Your task to perform on an android device: Go to Wikipedia Image 0: 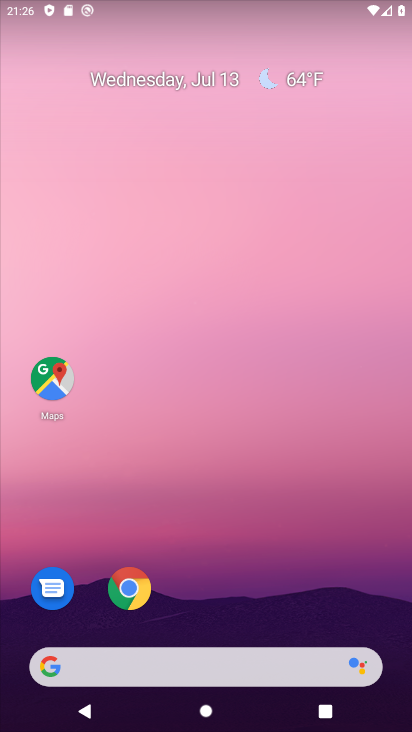
Step 0: click (137, 576)
Your task to perform on an android device: Go to Wikipedia Image 1: 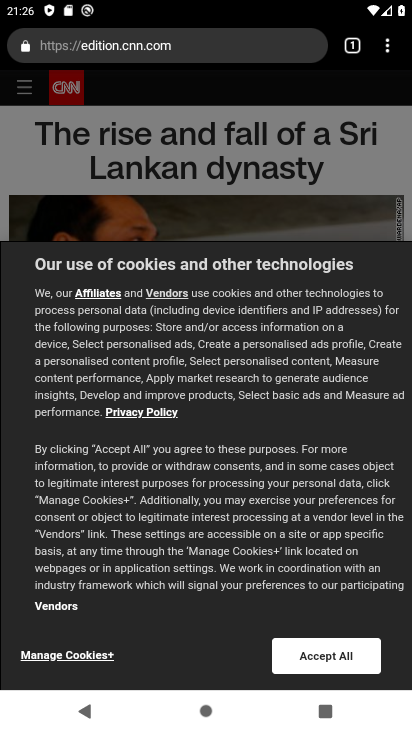
Step 1: click (354, 38)
Your task to perform on an android device: Go to Wikipedia Image 2: 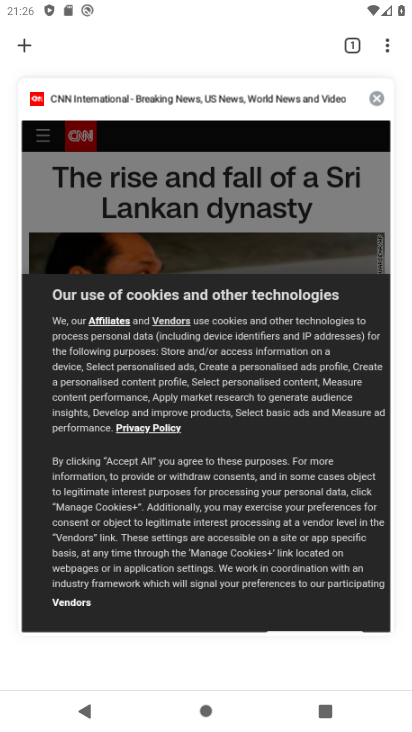
Step 2: click (13, 38)
Your task to perform on an android device: Go to Wikipedia Image 3: 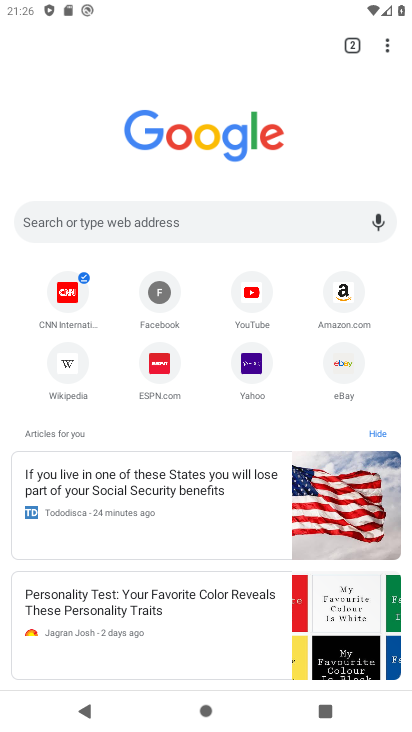
Step 3: click (58, 366)
Your task to perform on an android device: Go to Wikipedia Image 4: 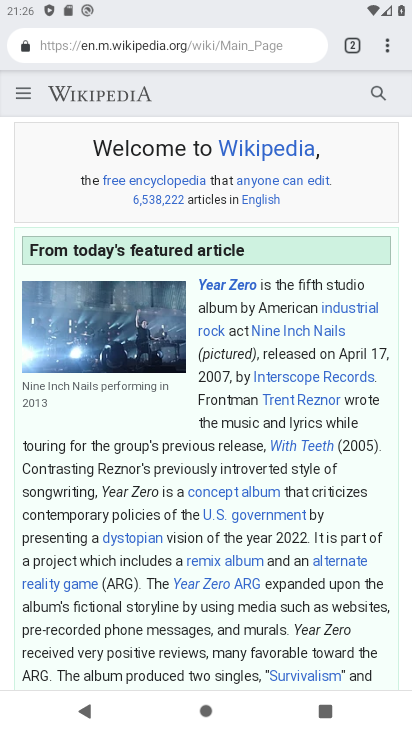
Step 4: task complete